Your task to perform on an android device: Find coffee shops on Maps Image 0: 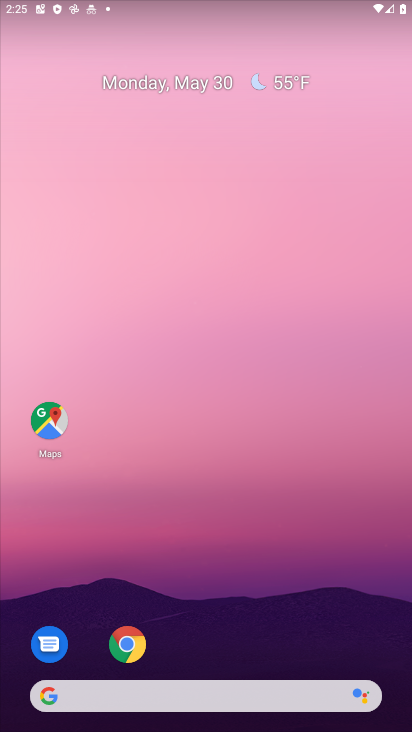
Step 0: click (40, 392)
Your task to perform on an android device: Find coffee shops on Maps Image 1: 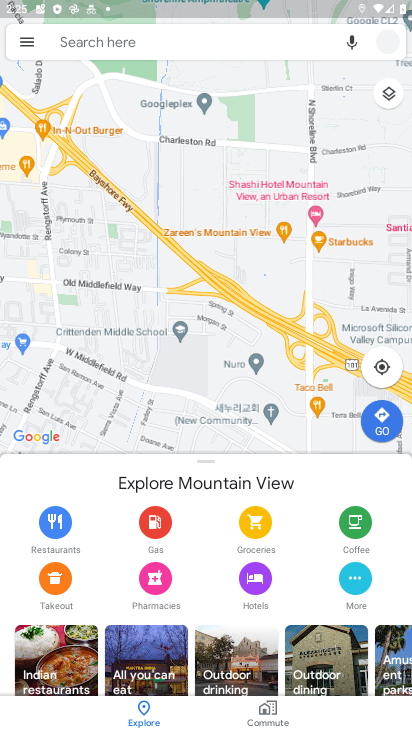
Step 1: task complete